Your task to perform on an android device: Go to wifi settings Image 0: 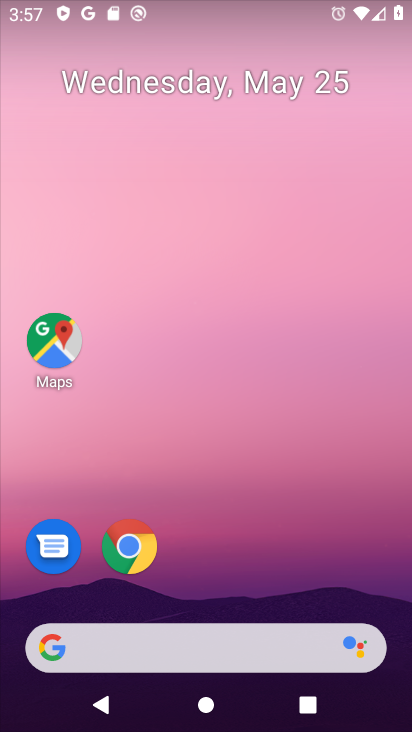
Step 0: drag from (231, 595) to (223, 13)
Your task to perform on an android device: Go to wifi settings Image 1: 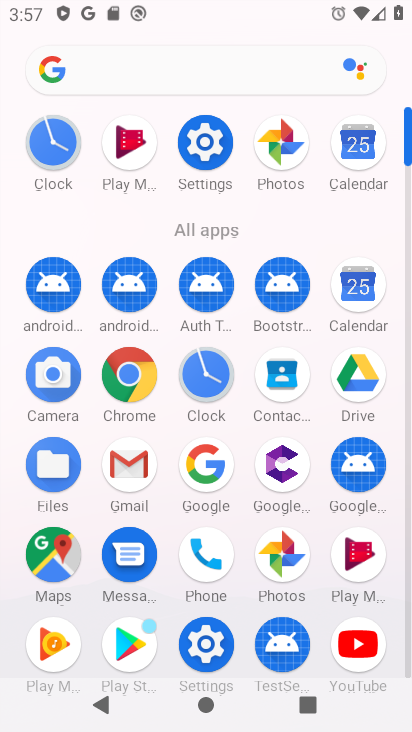
Step 1: click (201, 649)
Your task to perform on an android device: Go to wifi settings Image 2: 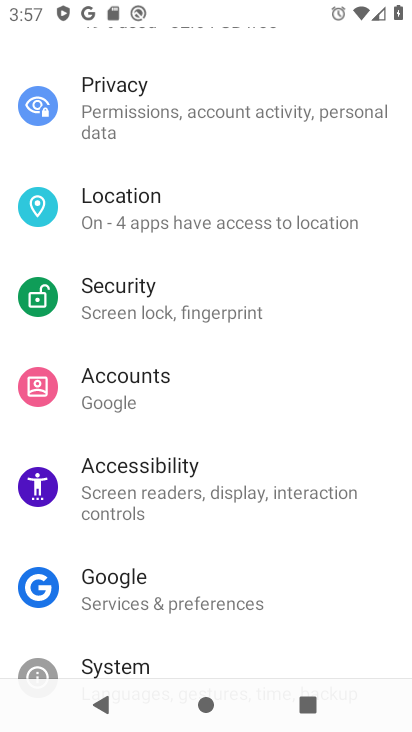
Step 2: drag from (221, 213) to (247, 677)
Your task to perform on an android device: Go to wifi settings Image 3: 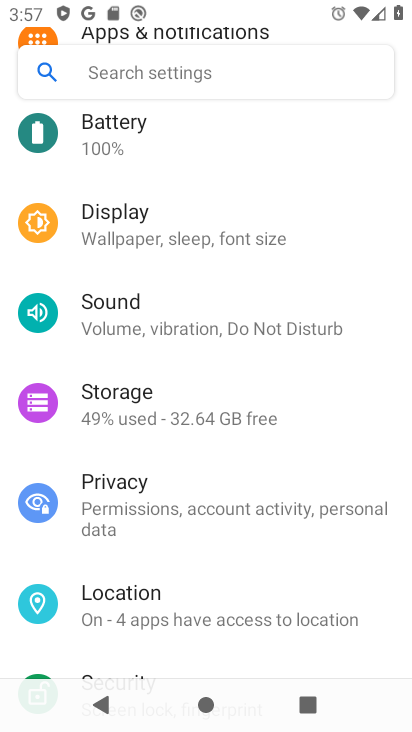
Step 3: drag from (175, 268) to (191, 653)
Your task to perform on an android device: Go to wifi settings Image 4: 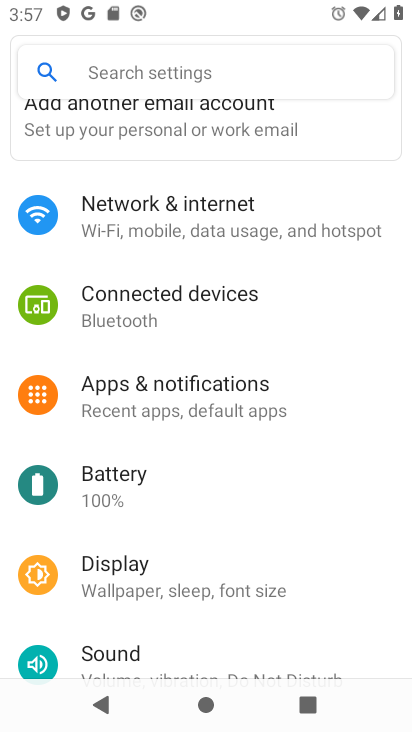
Step 4: click (183, 223)
Your task to perform on an android device: Go to wifi settings Image 5: 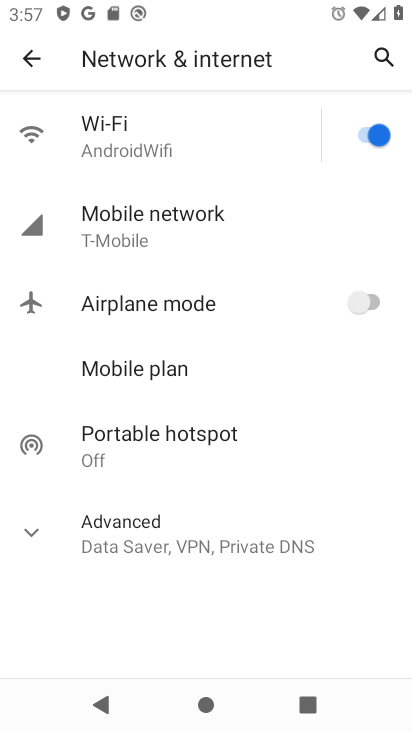
Step 5: click (130, 143)
Your task to perform on an android device: Go to wifi settings Image 6: 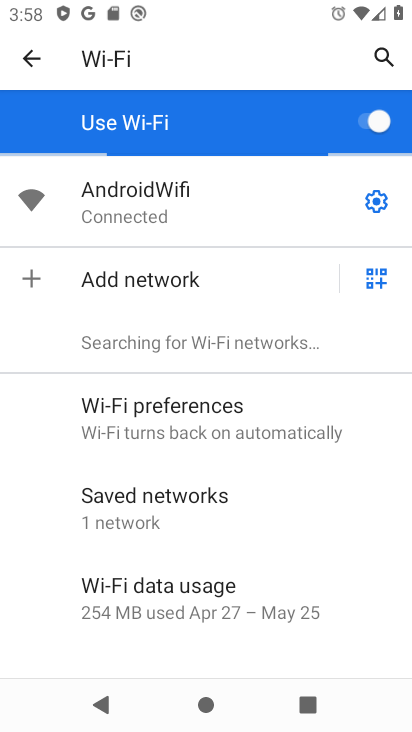
Step 6: task complete